Your task to perform on an android device: Open Google Chrome and click the shortcut for Amazon.com Image 0: 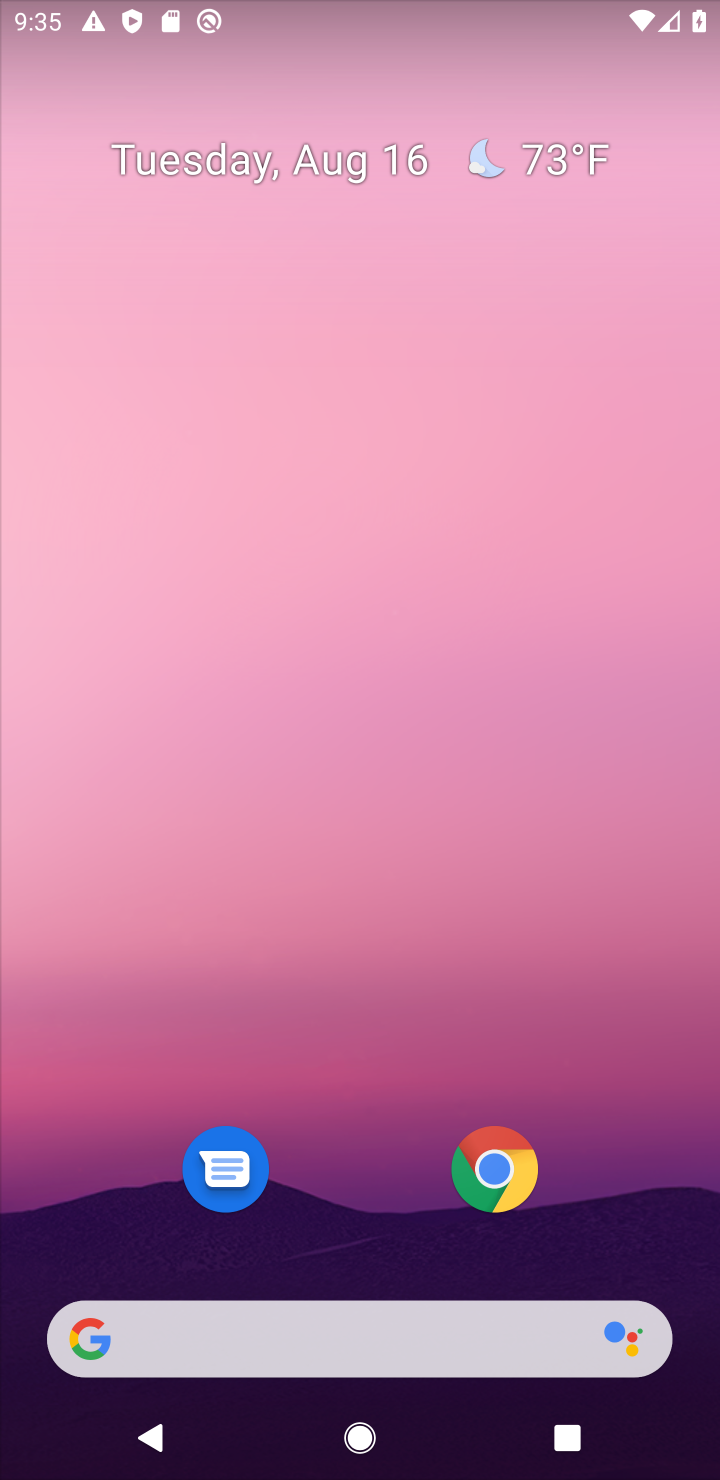
Step 0: click (480, 1174)
Your task to perform on an android device: Open Google Chrome and click the shortcut for Amazon.com Image 1: 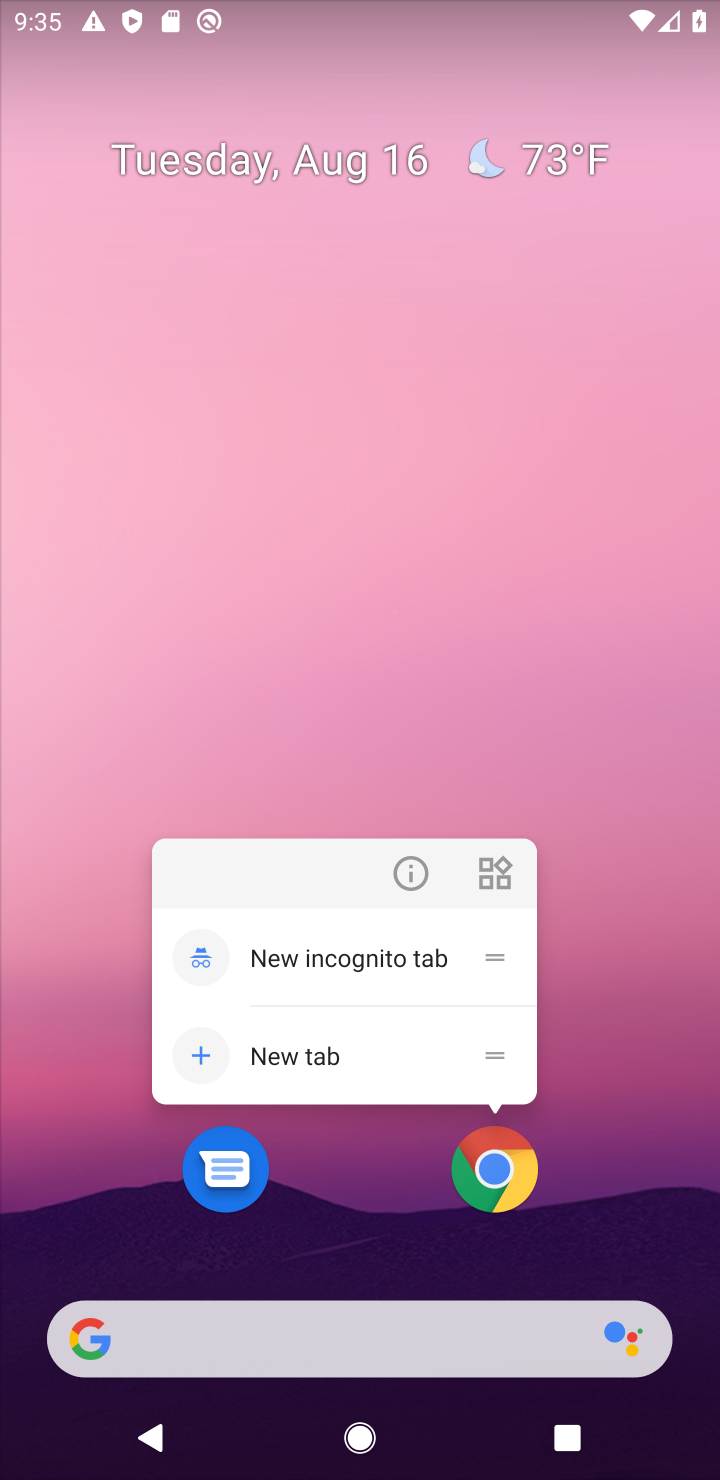
Step 1: click (491, 1174)
Your task to perform on an android device: Open Google Chrome and click the shortcut for Amazon.com Image 2: 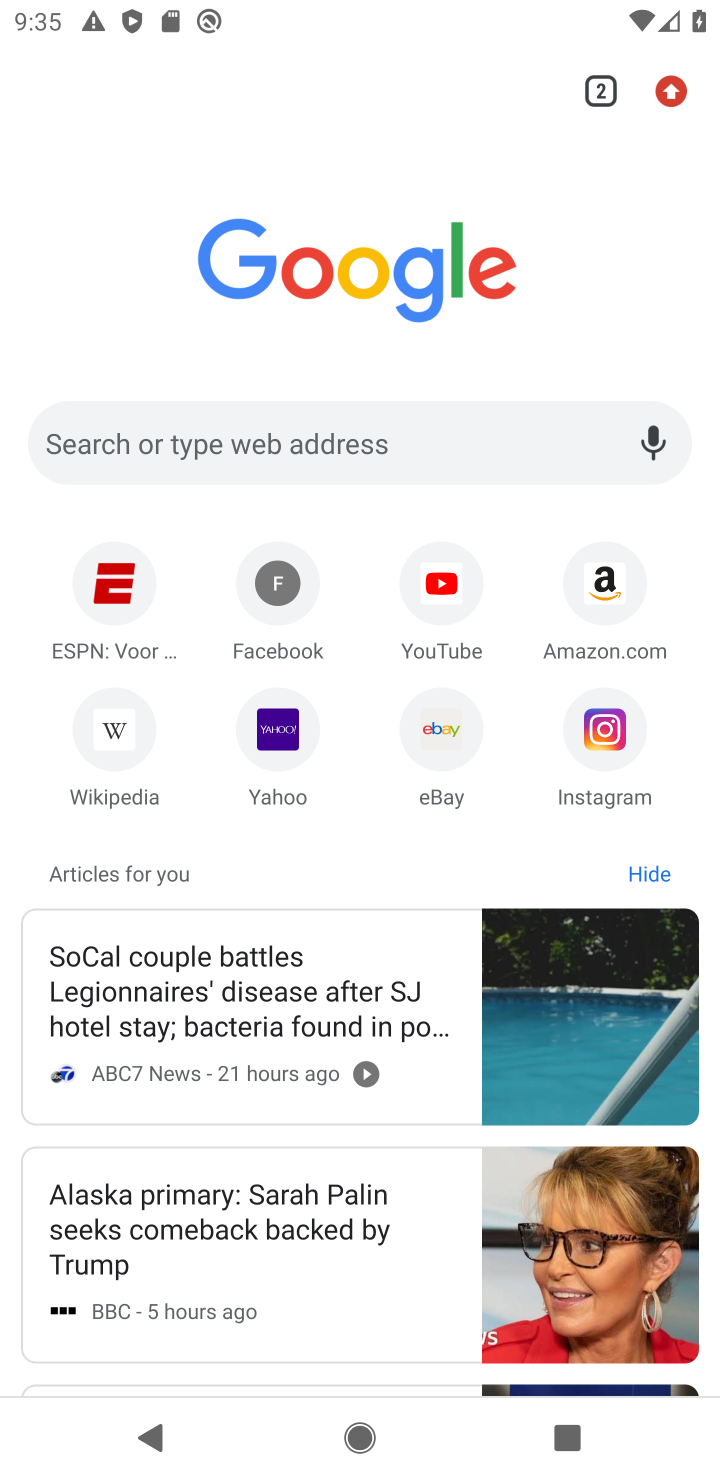
Step 2: click (602, 606)
Your task to perform on an android device: Open Google Chrome and click the shortcut for Amazon.com Image 3: 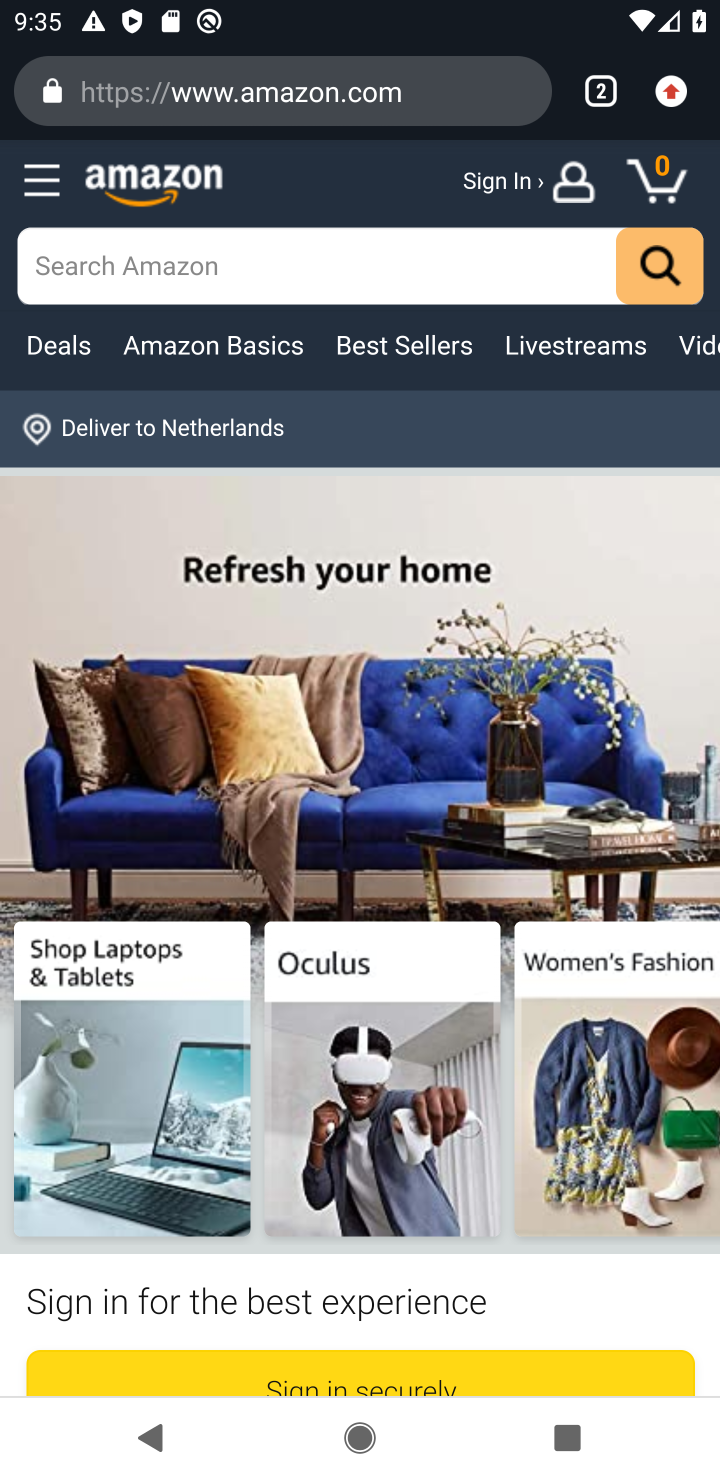
Step 3: task complete